Your task to perform on an android device: Open calendar and show me the second week of next month Image 0: 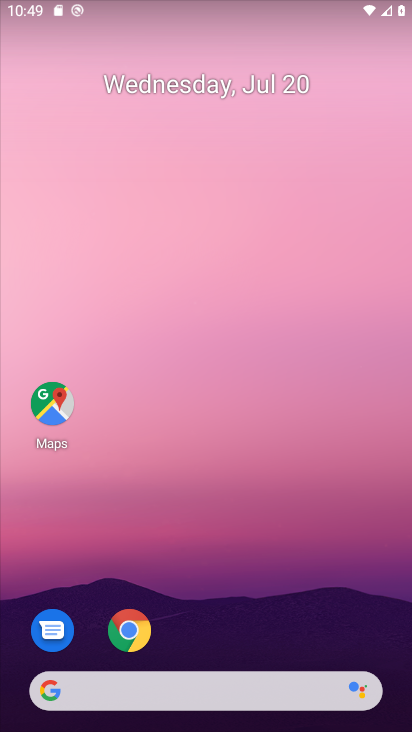
Step 0: click (281, 416)
Your task to perform on an android device: Open calendar and show me the second week of next month Image 1: 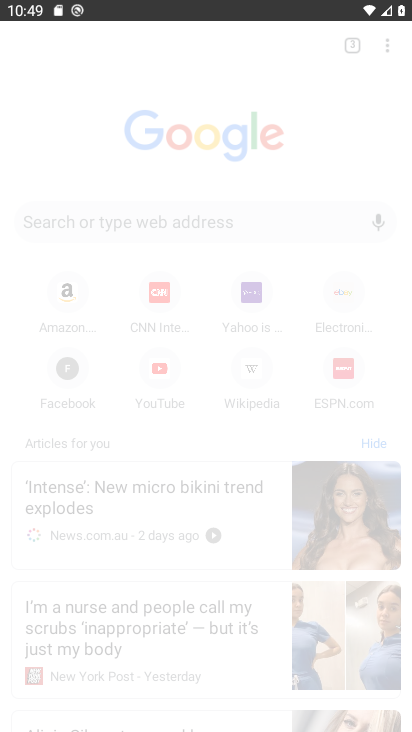
Step 1: click (280, 416)
Your task to perform on an android device: Open calendar and show me the second week of next month Image 2: 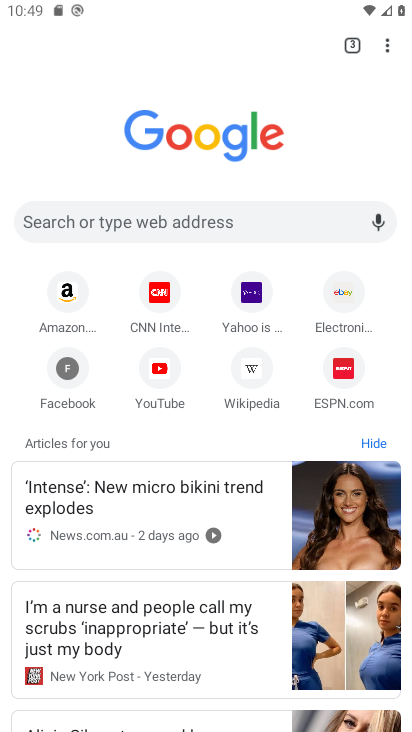
Step 2: click (279, 416)
Your task to perform on an android device: Open calendar and show me the second week of next month Image 3: 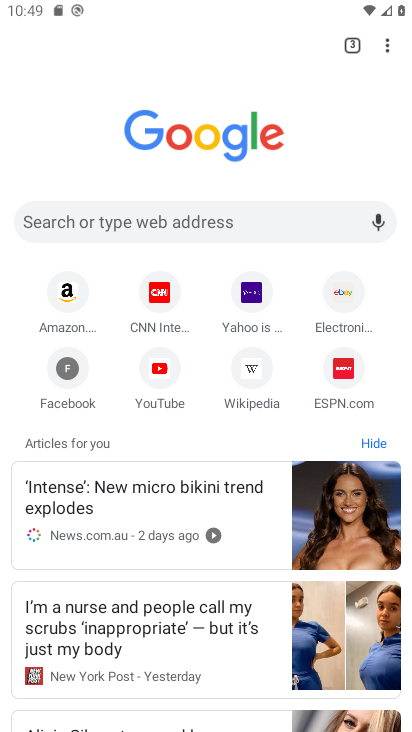
Step 3: press back button
Your task to perform on an android device: Open calendar and show me the second week of next month Image 4: 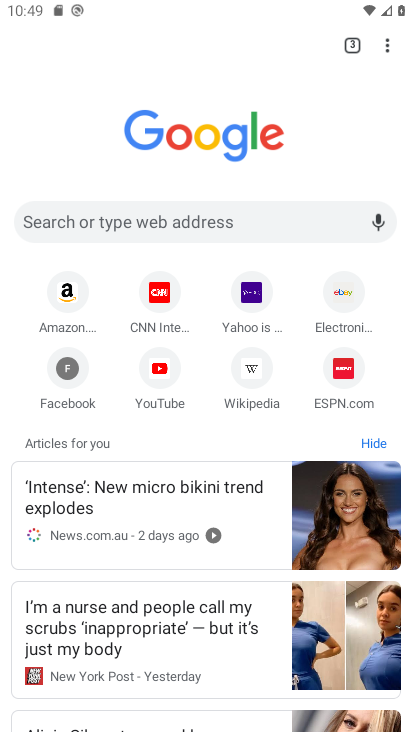
Step 4: press back button
Your task to perform on an android device: Open calendar and show me the second week of next month Image 5: 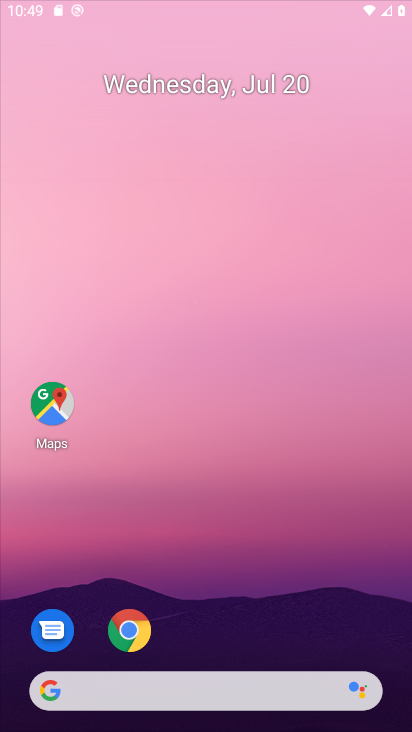
Step 5: press back button
Your task to perform on an android device: Open calendar and show me the second week of next month Image 6: 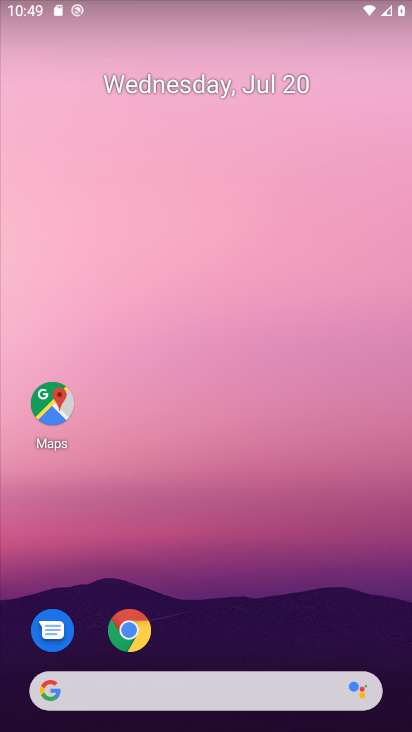
Step 6: drag from (217, 617) to (126, 65)
Your task to perform on an android device: Open calendar and show me the second week of next month Image 7: 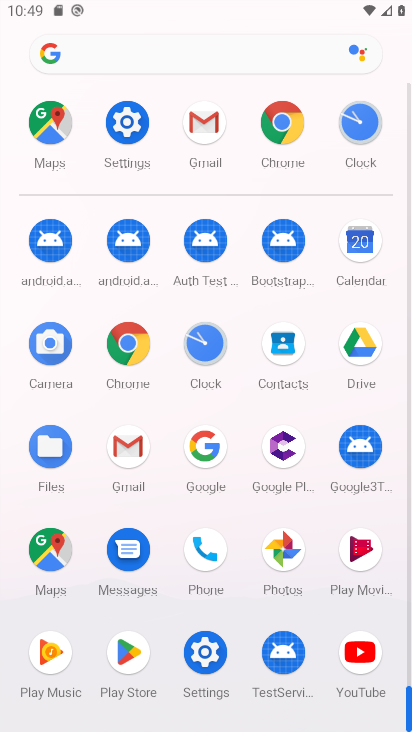
Step 7: click (360, 239)
Your task to perform on an android device: Open calendar and show me the second week of next month Image 8: 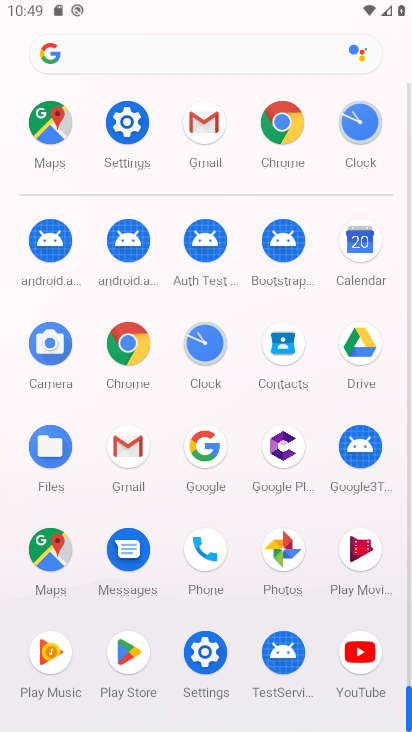
Step 8: click (361, 238)
Your task to perform on an android device: Open calendar and show me the second week of next month Image 9: 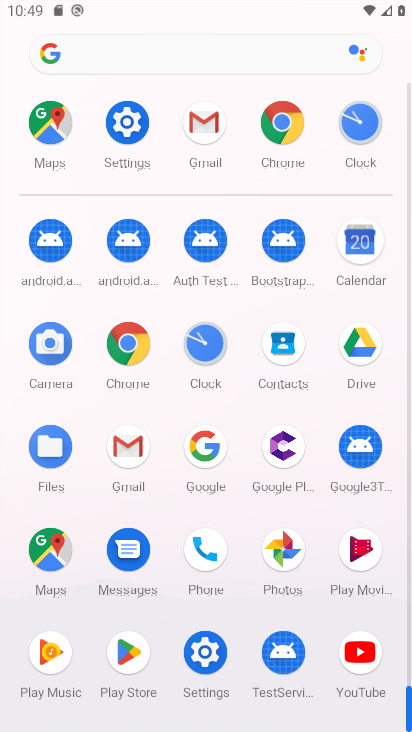
Step 9: click (361, 238)
Your task to perform on an android device: Open calendar and show me the second week of next month Image 10: 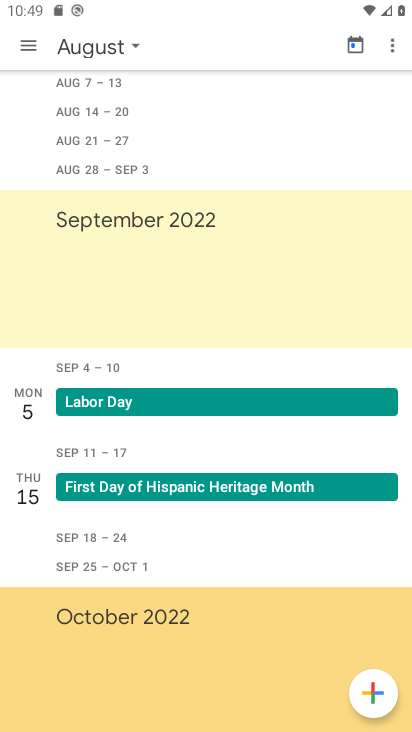
Step 10: click (362, 239)
Your task to perform on an android device: Open calendar and show me the second week of next month Image 11: 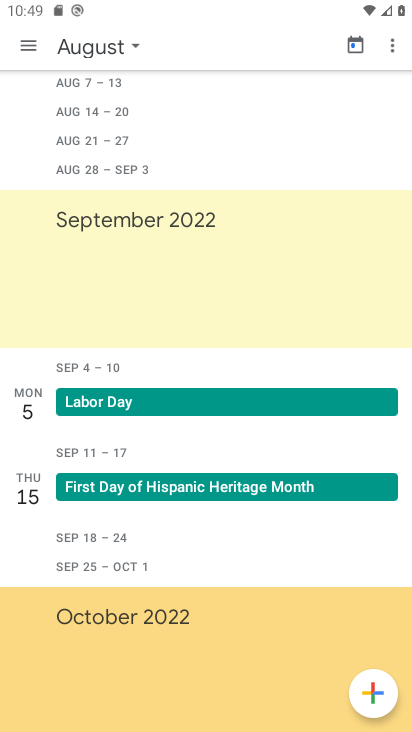
Step 11: click (141, 42)
Your task to perform on an android device: Open calendar and show me the second week of next month Image 12: 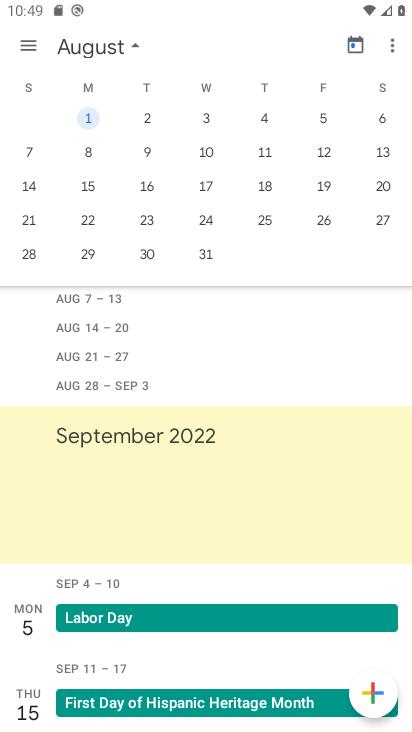
Step 12: click (205, 153)
Your task to perform on an android device: Open calendar and show me the second week of next month Image 13: 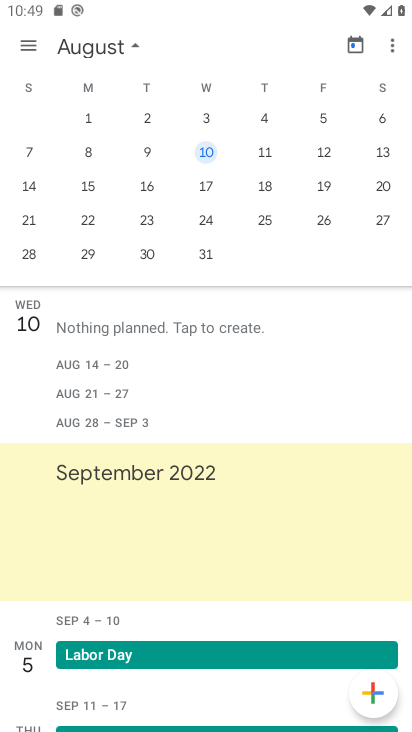
Step 13: click (205, 152)
Your task to perform on an android device: Open calendar and show me the second week of next month Image 14: 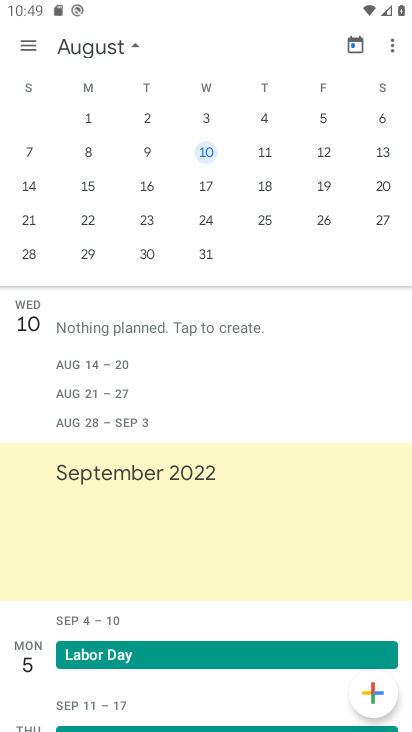
Step 14: click (209, 150)
Your task to perform on an android device: Open calendar and show me the second week of next month Image 15: 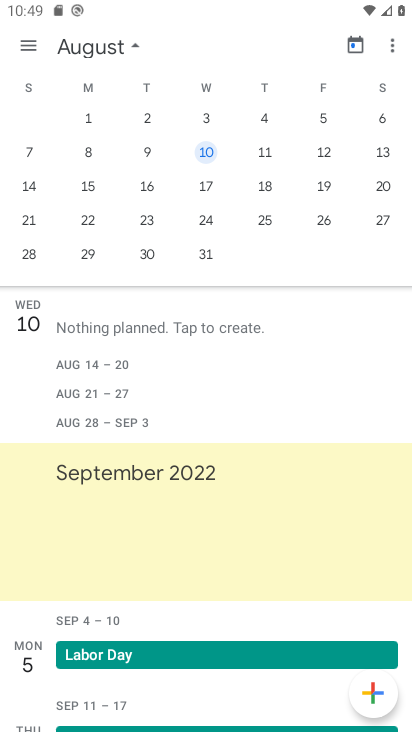
Step 15: click (209, 150)
Your task to perform on an android device: Open calendar and show me the second week of next month Image 16: 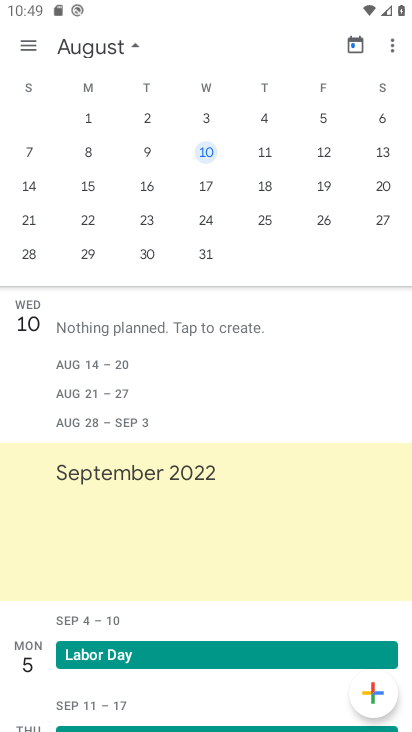
Step 16: task complete